Your task to perform on an android device: see tabs open on other devices in the chrome app Image 0: 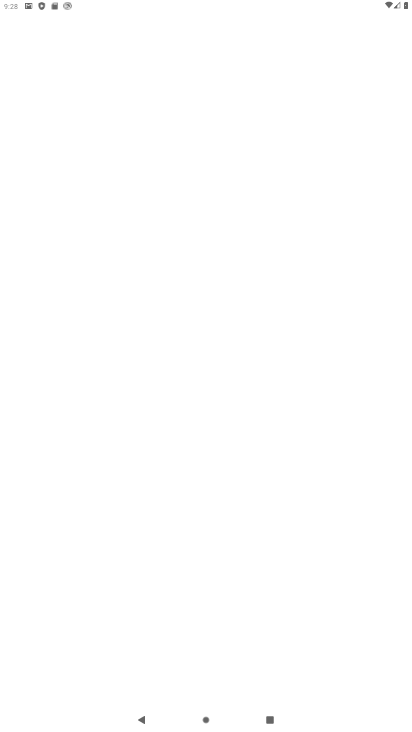
Step 0: press home button
Your task to perform on an android device: see tabs open on other devices in the chrome app Image 1: 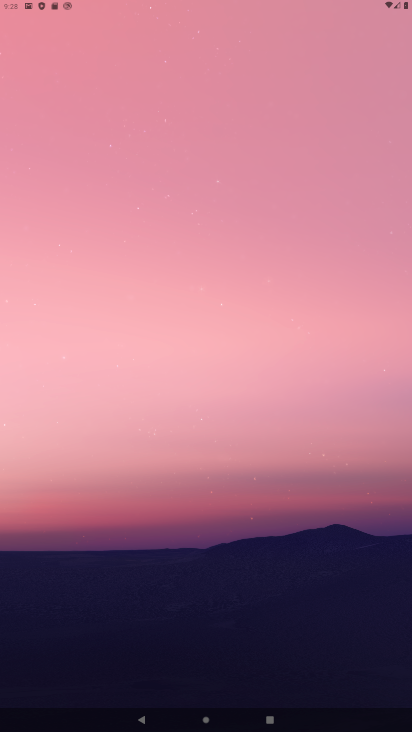
Step 1: drag from (388, 710) to (154, 31)
Your task to perform on an android device: see tabs open on other devices in the chrome app Image 2: 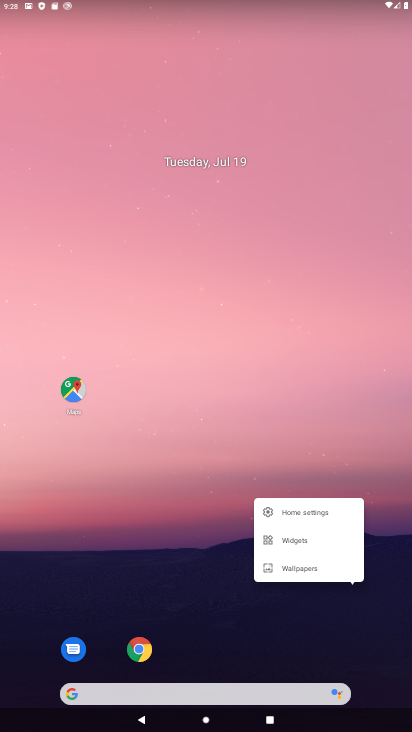
Step 2: click (282, 349)
Your task to perform on an android device: see tabs open on other devices in the chrome app Image 3: 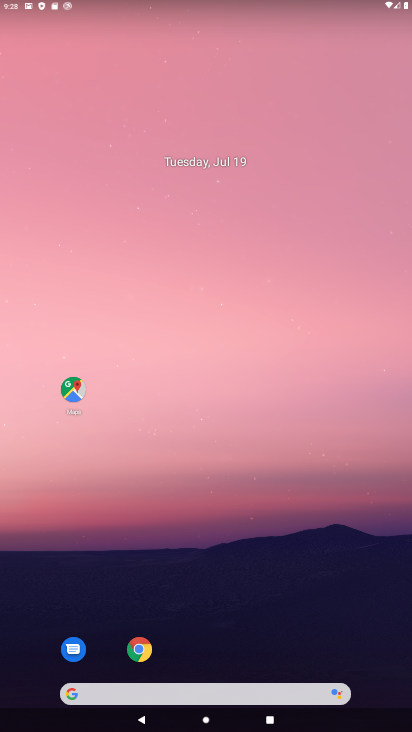
Step 3: drag from (395, 651) to (193, 102)
Your task to perform on an android device: see tabs open on other devices in the chrome app Image 4: 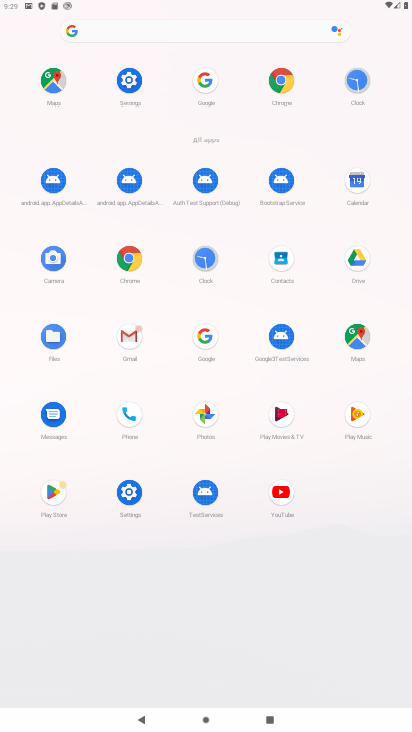
Step 4: click (110, 259)
Your task to perform on an android device: see tabs open on other devices in the chrome app Image 5: 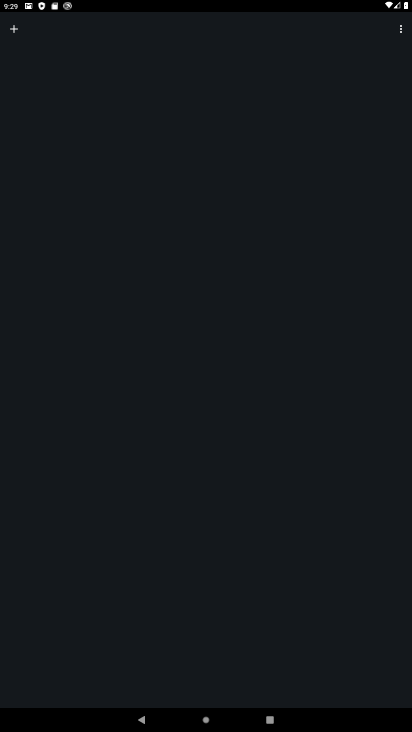
Step 5: press home button
Your task to perform on an android device: see tabs open on other devices in the chrome app Image 6: 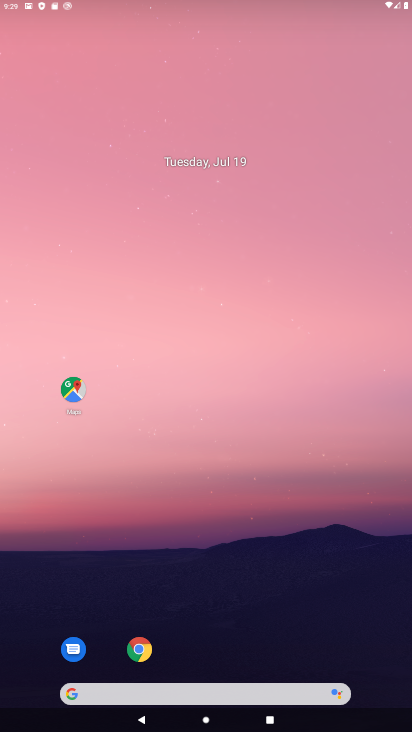
Step 6: drag from (352, 660) to (205, 92)
Your task to perform on an android device: see tabs open on other devices in the chrome app Image 7: 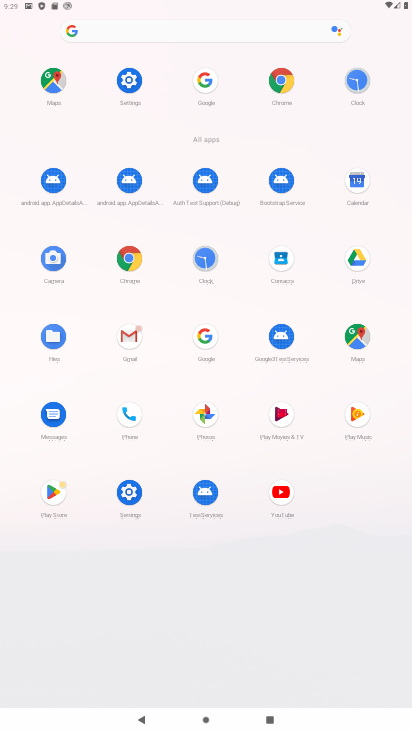
Step 7: click (282, 78)
Your task to perform on an android device: see tabs open on other devices in the chrome app Image 8: 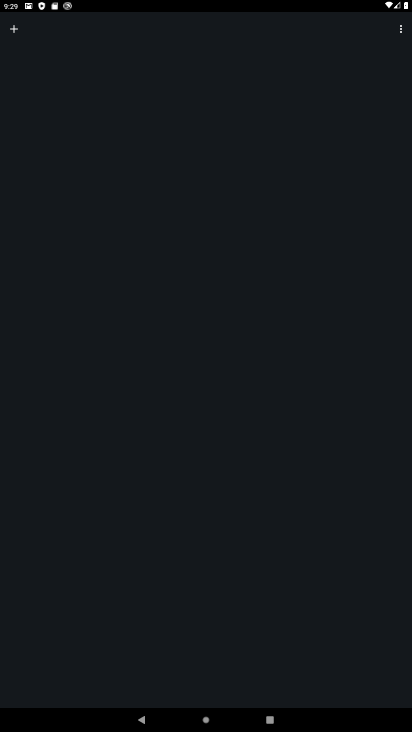
Step 8: task complete